Your task to perform on an android device: Open eBay Image 0: 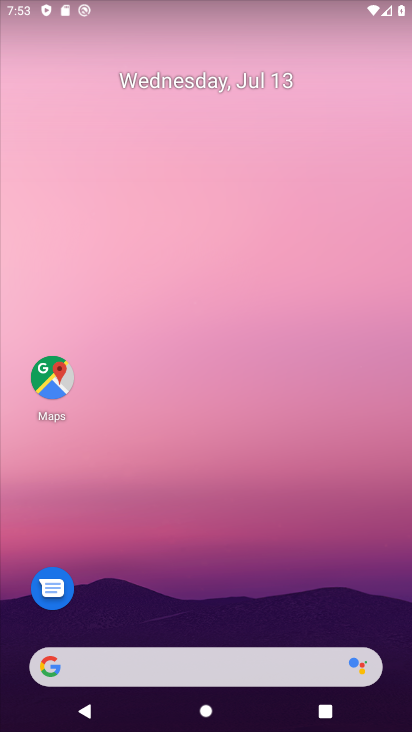
Step 0: click (145, 667)
Your task to perform on an android device: Open eBay Image 1: 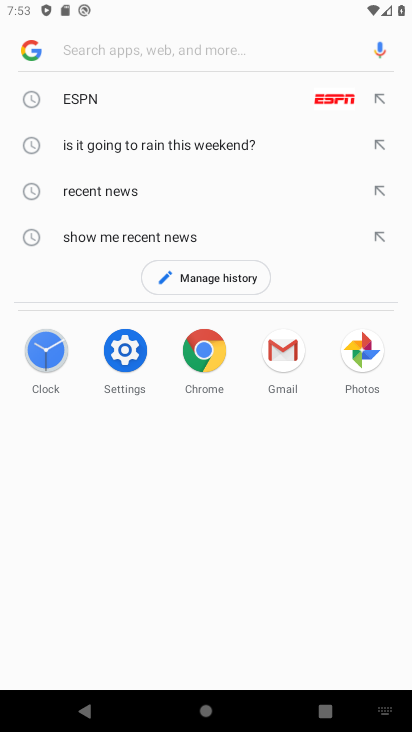
Step 1: type "ebay"
Your task to perform on an android device: Open eBay Image 2: 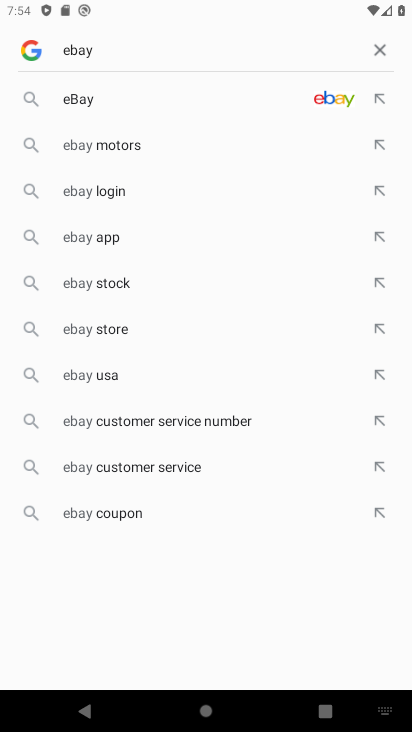
Step 2: click (317, 93)
Your task to perform on an android device: Open eBay Image 3: 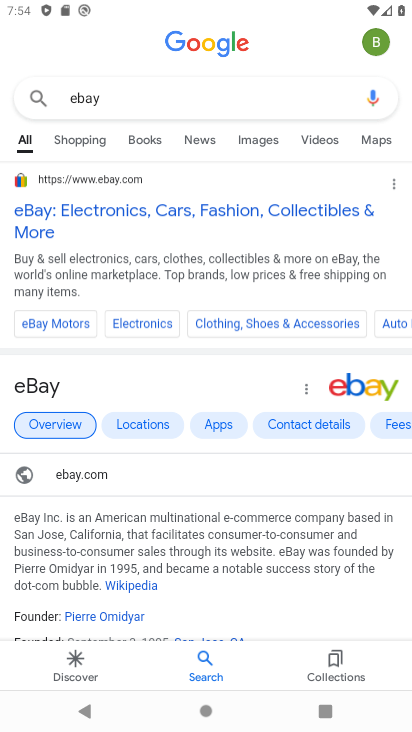
Step 3: click (132, 207)
Your task to perform on an android device: Open eBay Image 4: 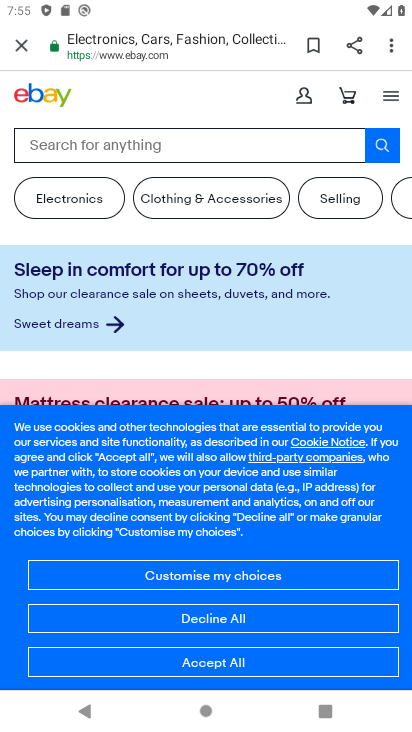
Step 4: task complete